Your task to perform on an android device: search for starred emails in the gmail app Image 0: 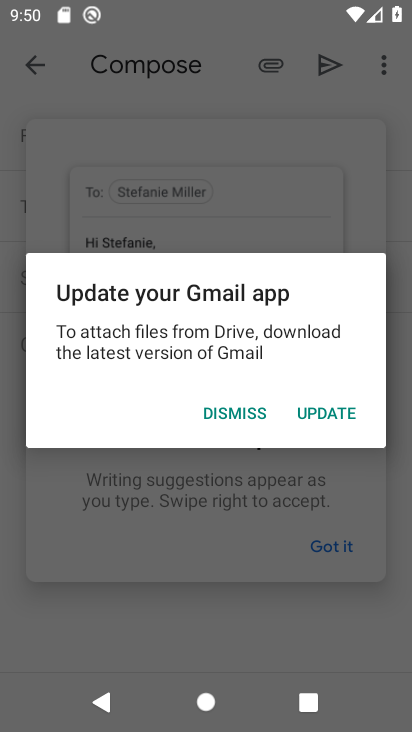
Step 0: press home button
Your task to perform on an android device: search for starred emails in the gmail app Image 1: 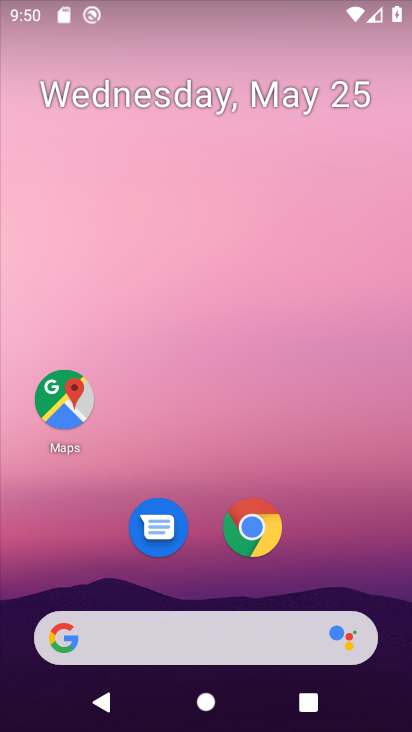
Step 1: drag from (331, 558) to (307, 26)
Your task to perform on an android device: search for starred emails in the gmail app Image 2: 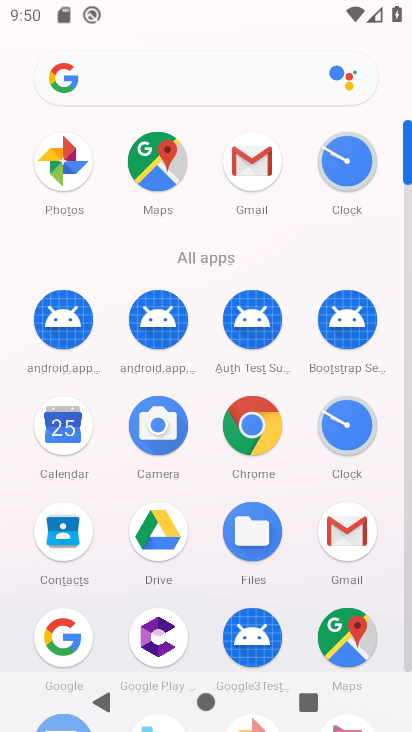
Step 2: click (254, 165)
Your task to perform on an android device: search for starred emails in the gmail app Image 3: 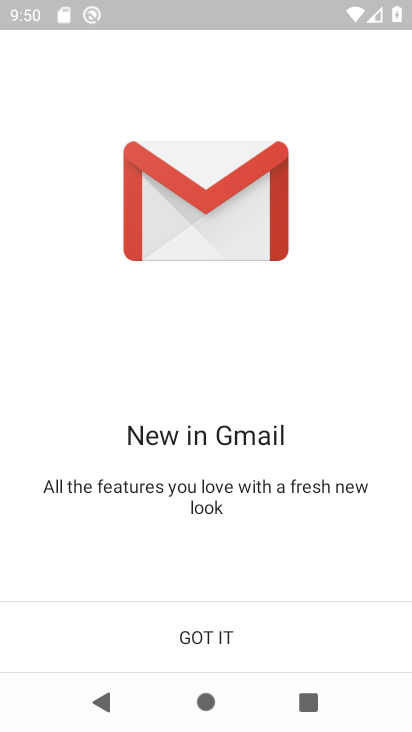
Step 3: click (192, 617)
Your task to perform on an android device: search for starred emails in the gmail app Image 4: 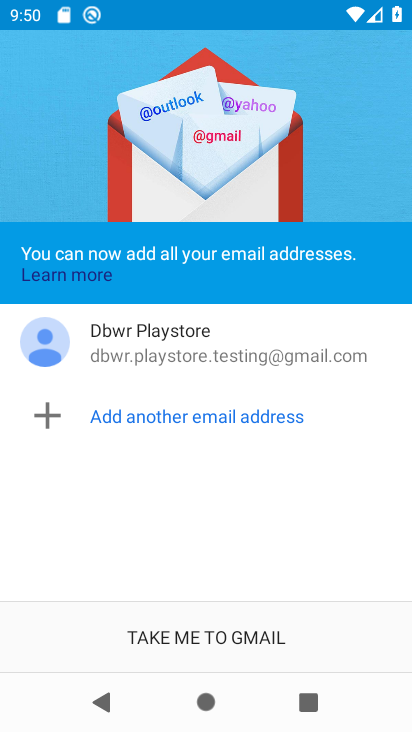
Step 4: click (184, 645)
Your task to perform on an android device: search for starred emails in the gmail app Image 5: 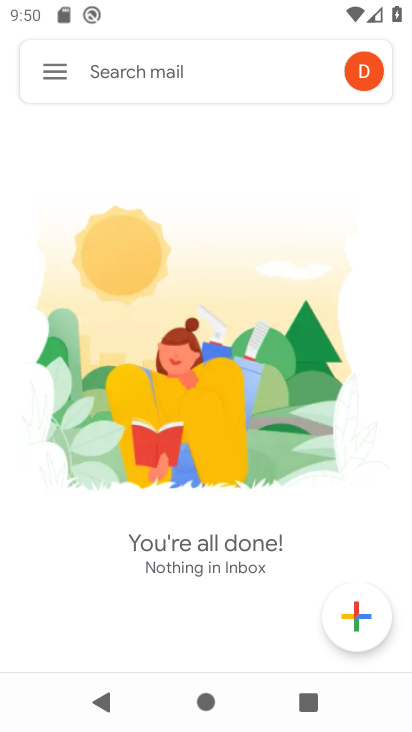
Step 5: click (59, 67)
Your task to perform on an android device: search for starred emails in the gmail app Image 6: 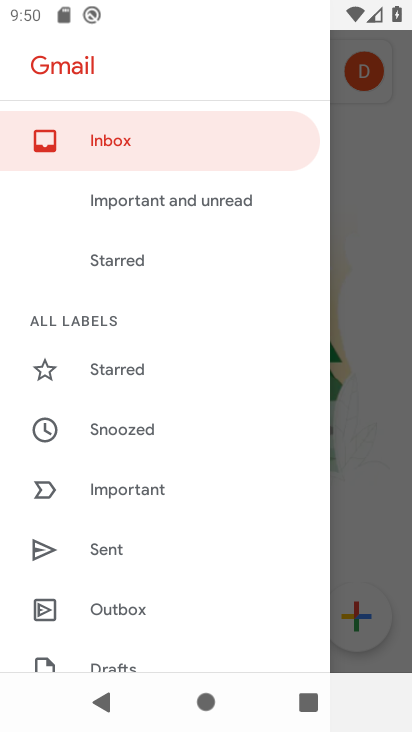
Step 6: drag from (227, 625) to (198, 489)
Your task to perform on an android device: search for starred emails in the gmail app Image 7: 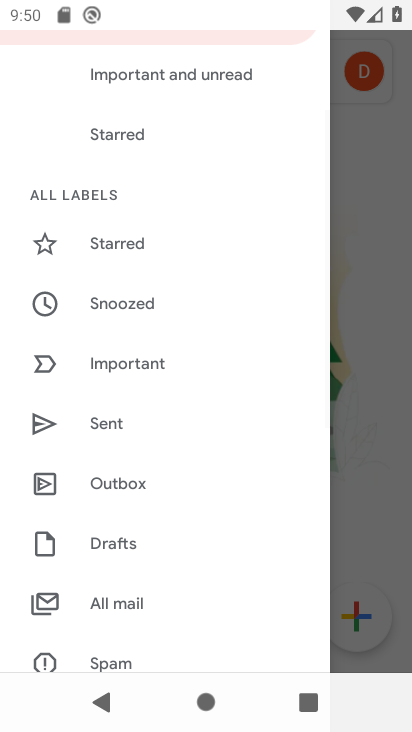
Step 7: click (117, 234)
Your task to perform on an android device: search for starred emails in the gmail app Image 8: 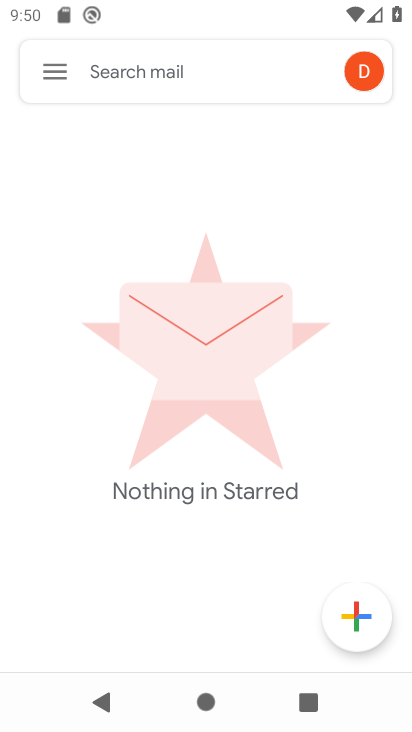
Step 8: task complete